Your task to perform on an android device: Clear all items from cart on ebay. Add logitech g933 to the cart on ebay, then select checkout. Image 0: 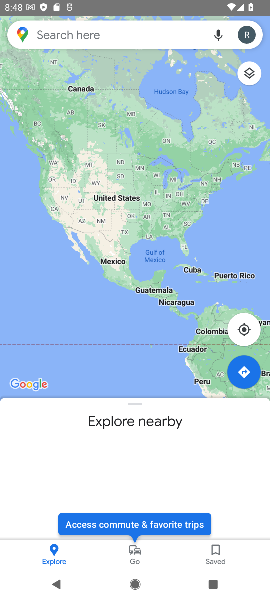
Step 0: press home button
Your task to perform on an android device: Clear all items from cart on ebay. Add logitech g933 to the cart on ebay, then select checkout. Image 1: 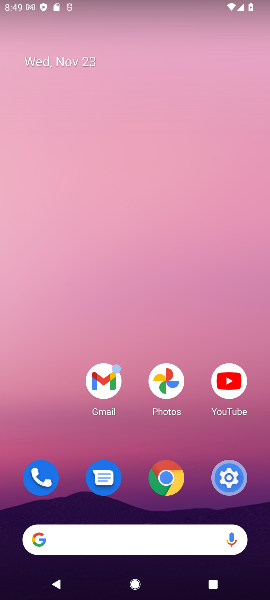
Step 1: click (119, 547)
Your task to perform on an android device: Clear all items from cart on ebay. Add logitech g933 to the cart on ebay, then select checkout. Image 2: 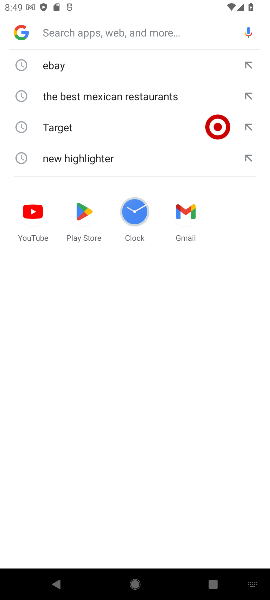
Step 2: type "ebay.com"
Your task to perform on an android device: Clear all items from cart on ebay. Add logitech g933 to the cart on ebay, then select checkout. Image 3: 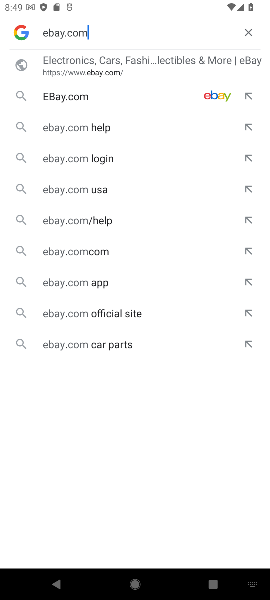
Step 3: click (89, 100)
Your task to perform on an android device: Clear all items from cart on ebay. Add logitech g933 to the cart on ebay, then select checkout. Image 4: 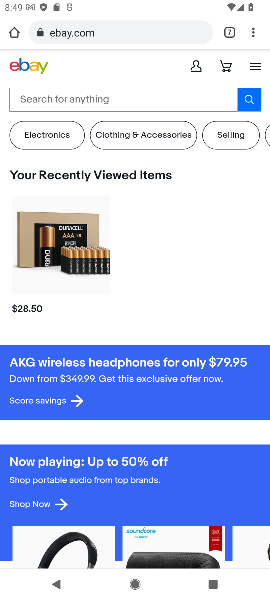
Step 4: click (73, 97)
Your task to perform on an android device: Clear all items from cart on ebay. Add logitech g933 to the cart on ebay, then select checkout. Image 5: 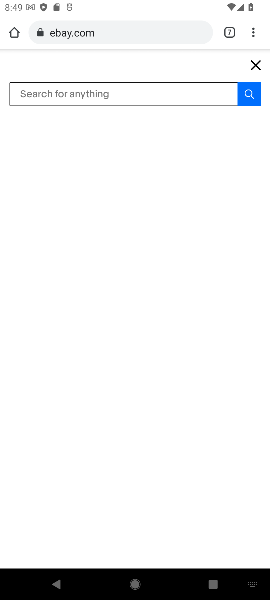
Step 5: type "logitech g933"
Your task to perform on an android device: Clear all items from cart on ebay. Add logitech g933 to the cart on ebay, then select checkout. Image 6: 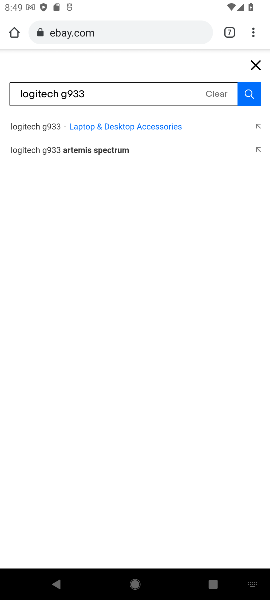
Step 6: click (48, 128)
Your task to perform on an android device: Clear all items from cart on ebay. Add logitech g933 to the cart on ebay, then select checkout. Image 7: 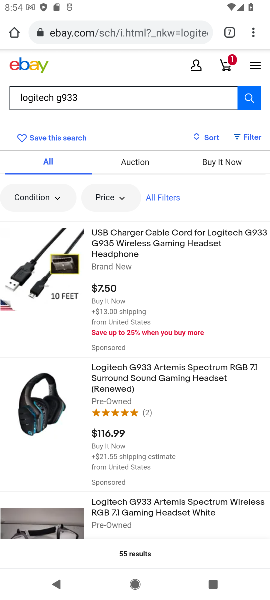
Step 7: task complete